Your task to perform on an android device: Open Youtube and go to "Your channel" Image 0: 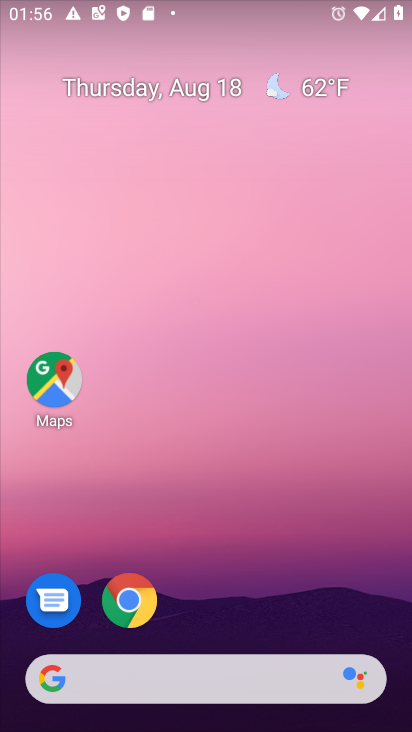
Step 0: press home button
Your task to perform on an android device: Open Youtube and go to "Your channel" Image 1: 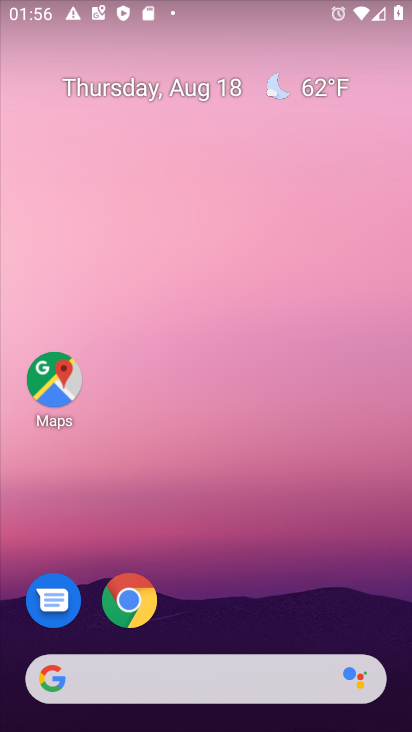
Step 1: press home button
Your task to perform on an android device: Open Youtube and go to "Your channel" Image 2: 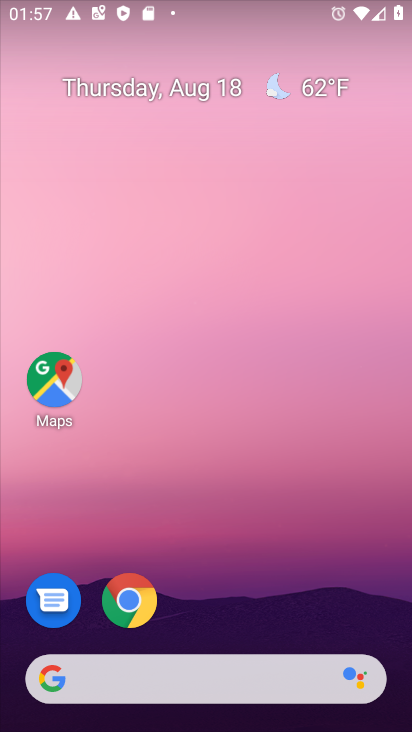
Step 2: drag from (240, 575) to (267, 12)
Your task to perform on an android device: Open Youtube and go to "Your channel" Image 3: 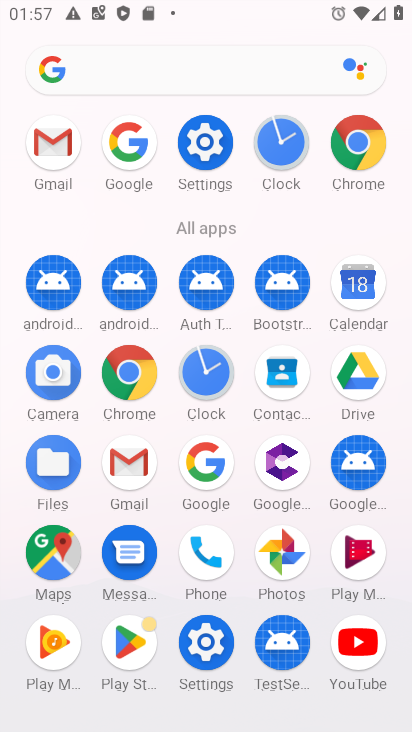
Step 3: click (355, 647)
Your task to perform on an android device: Open Youtube and go to "Your channel" Image 4: 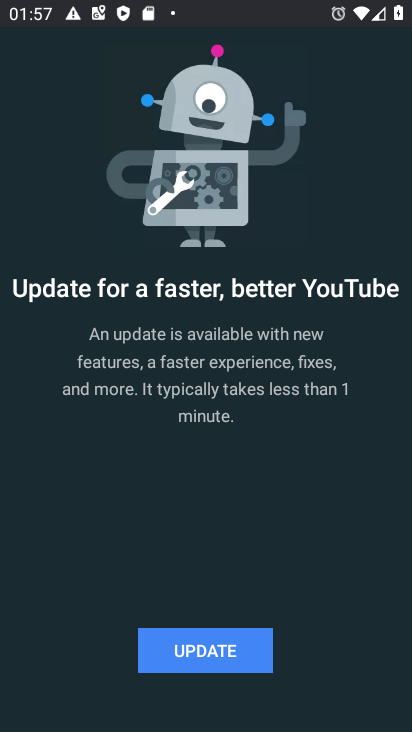
Step 4: click (225, 657)
Your task to perform on an android device: Open Youtube and go to "Your channel" Image 5: 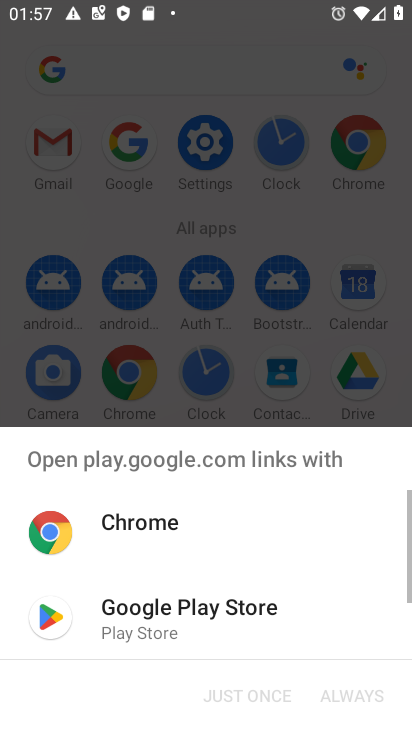
Step 5: click (154, 614)
Your task to perform on an android device: Open Youtube and go to "Your channel" Image 6: 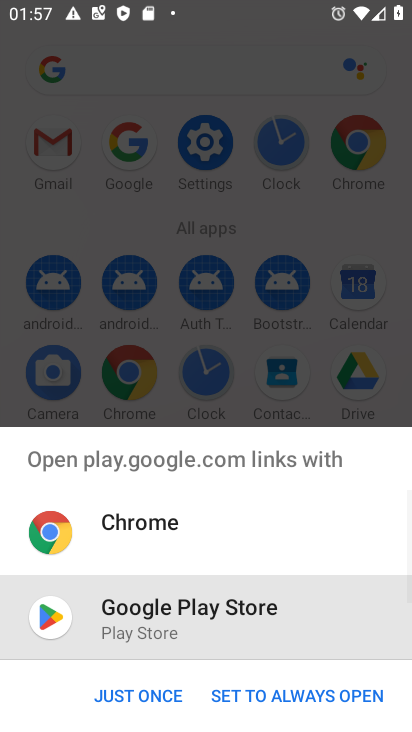
Step 6: click (156, 692)
Your task to perform on an android device: Open Youtube and go to "Your channel" Image 7: 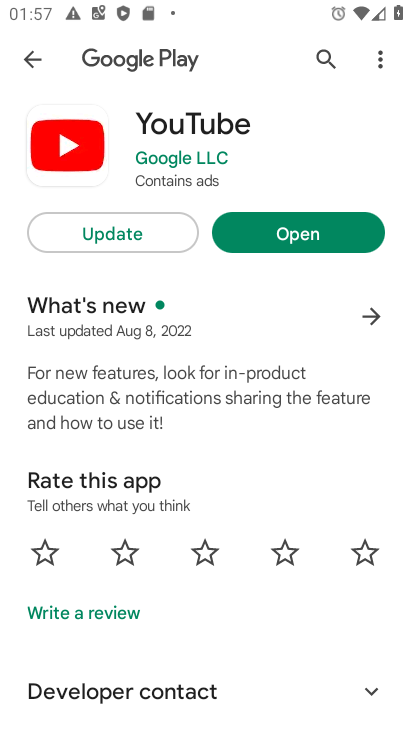
Step 7: click (109, 231)
Your task to perform on an android device: Open Youtube and go to "Your channel" Image 8: 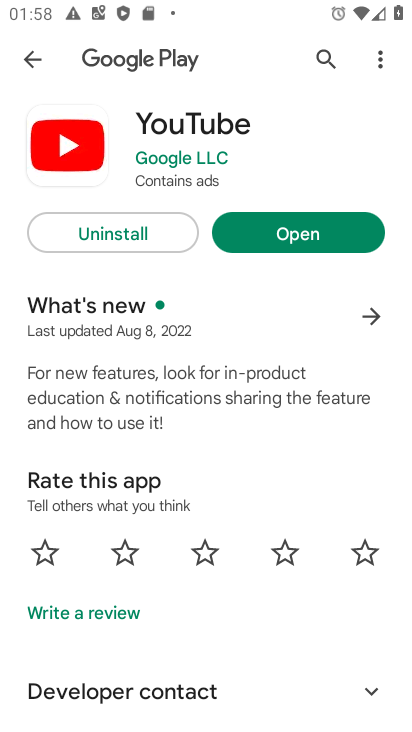
Step 8: click (287, 242)
Your task to perform on an android device: Open Youtube and go to "Your channel" Image 9: 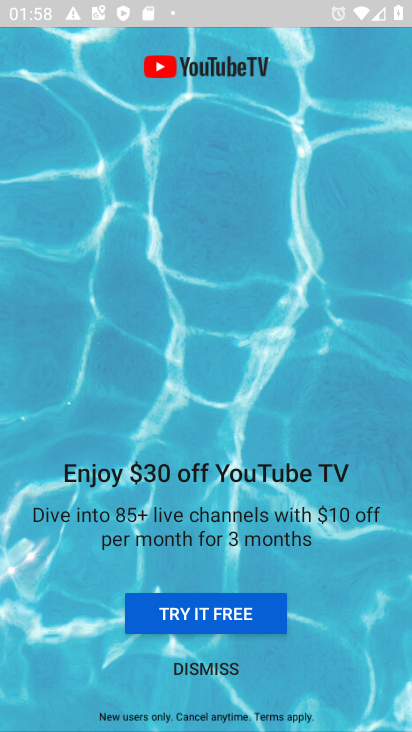
Step 9: click (242, 602)
Your task to perform on an android device: Open Youtube and go to "Your channel" Image 10: 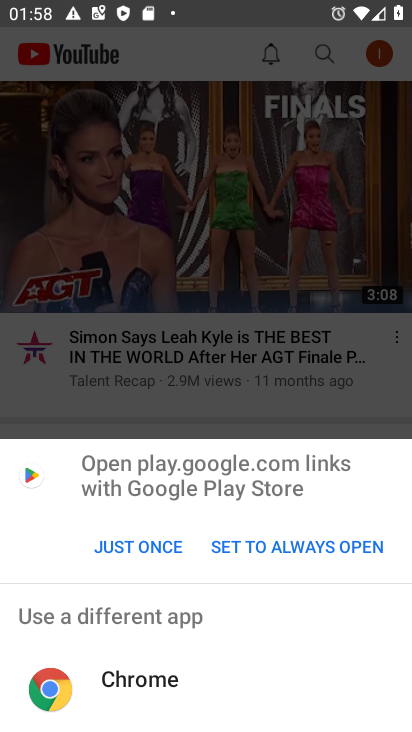
Step 10: click (220, 400)
Your task to perform on an android device: Open Youtube and go to "Your channel" Image 11: 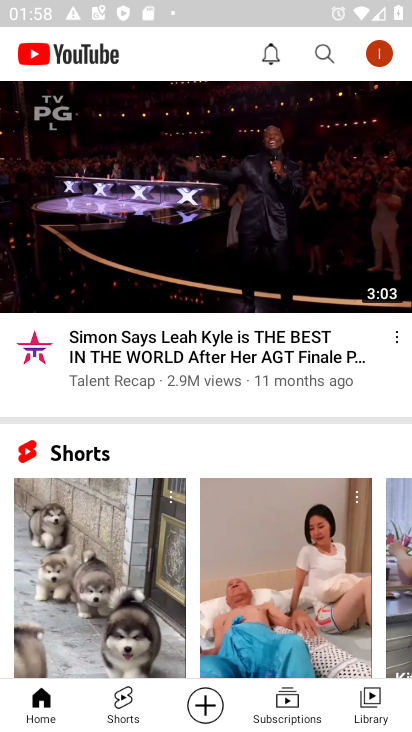
Step 11: click (383, 50)
Your task to perform on an android device: Open Youtube and go to "Your channel" Image 12: 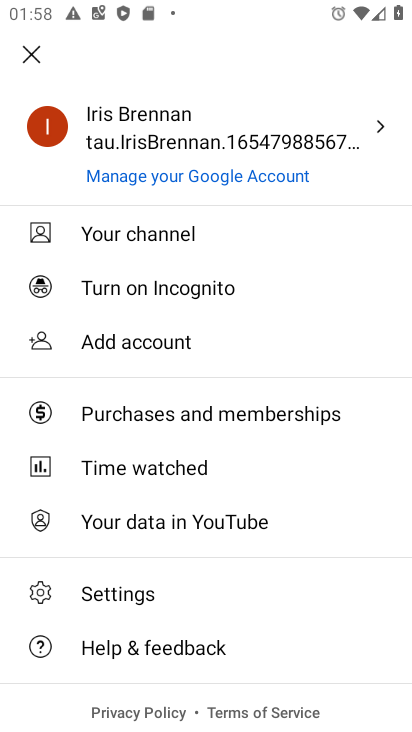
Step 12: click (137, 233)
Your task to perform on an android device: Open Youtube and go to "Your channel" Image 13: 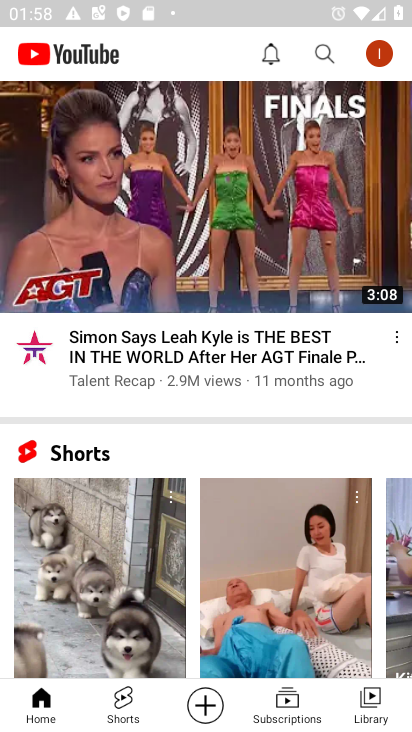
Step 13: task complete